Your task to perform on an android device: Open Amazon Image 0: 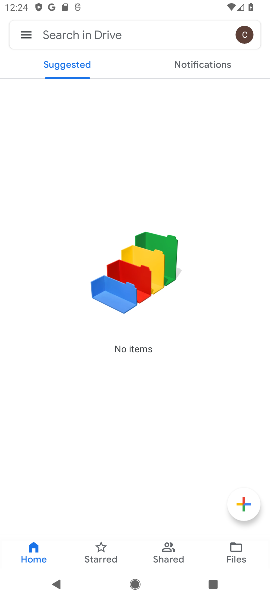
Step 0: press home button
Your task to perform on an android device: Open Amazon Image 1: 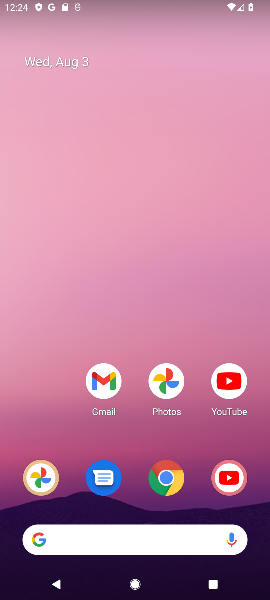
Step 1: click (170, 477)
Your task to perform on an android device: Open Amazon Image 2: 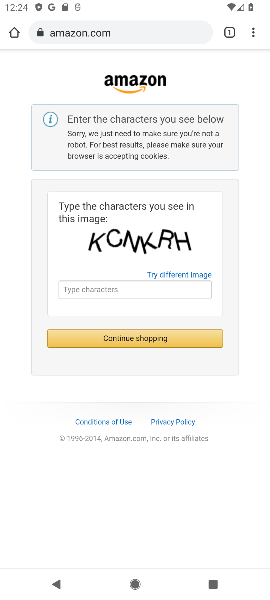
Step 2: task complete